Your task to perform on an android device: turn off wifi Image 0: 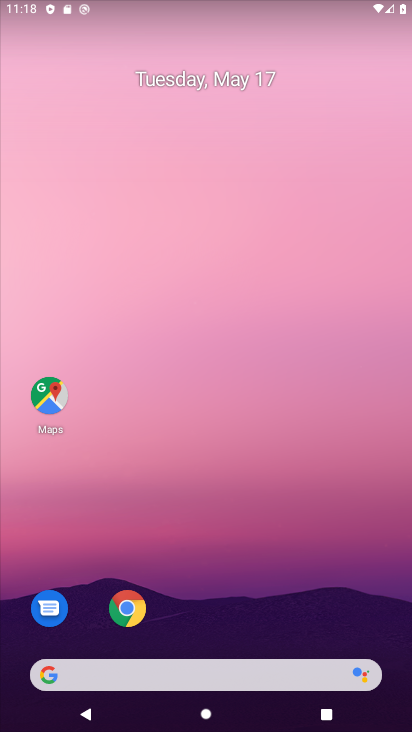
Step 0: click (217, 80)
Your task to perform on an android device: turn off wifi Image 1: 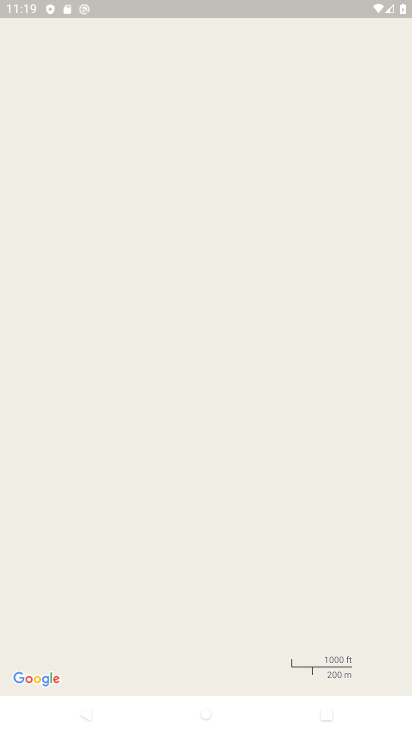
Step 1: press home button
Your task to perform on an android device: turn off wifi Image 2: 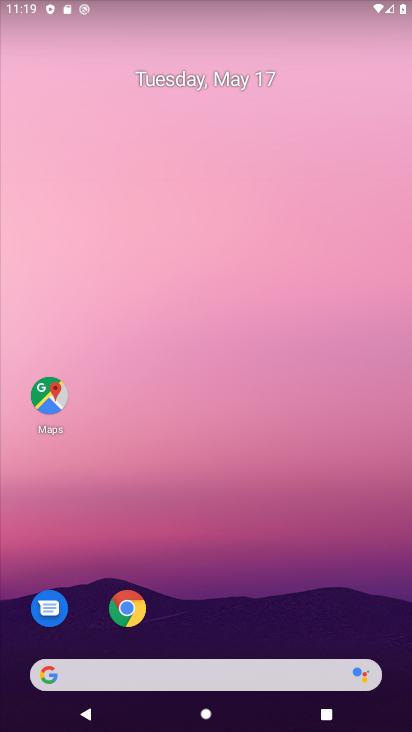
Step 2: drag from (329, 616) to (241, 71)
Your task to perform on an android device: turn off wifi Image 3: 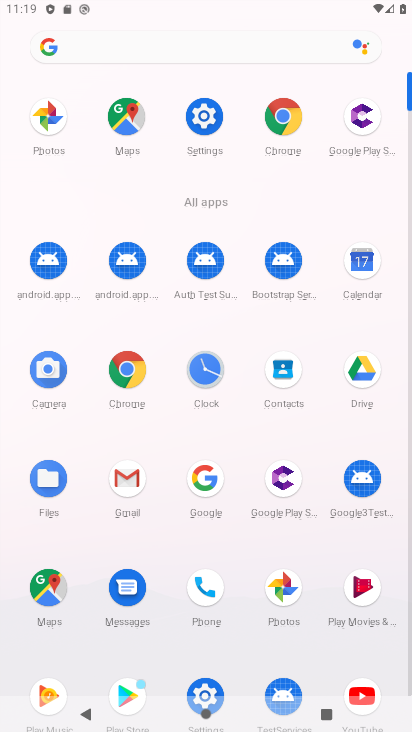
Step 3: click (202, 120)
Your task to perform on an android device: turn off wifi Image 4: 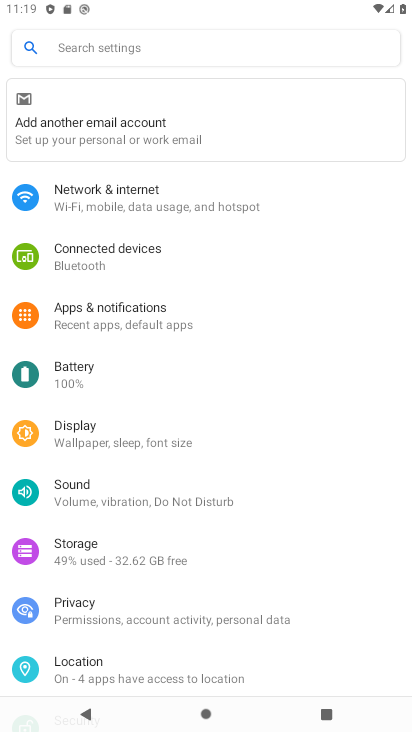
Step 4: click (165, 205)
Your task to perform on an android device: turn off wifi Image 5: 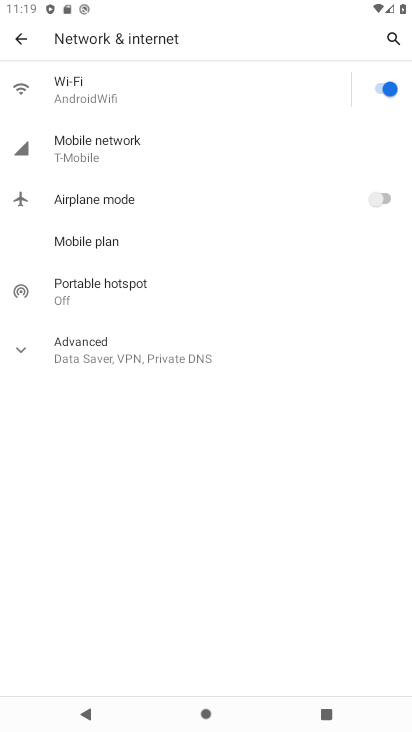
Step 5: click (187, 78)
Your task to perform on an android device: turn off wifi Image 6: 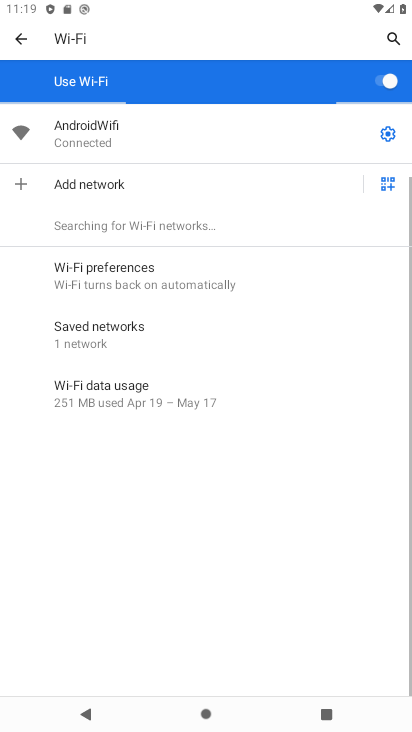
Step 6: click (390, 79)
Your task to perform on an android device: turn off wifi Image 7: 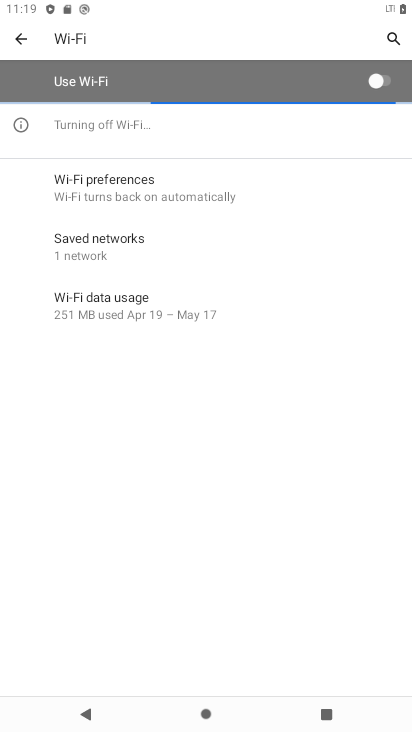
Step 7: task complete